Your task to perform on an android device: Go to location settings Image 0: 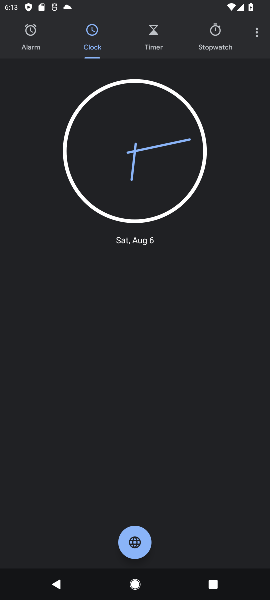
Step 0: press home button
Your task to perform on an android device: Go to location settings Image 1: 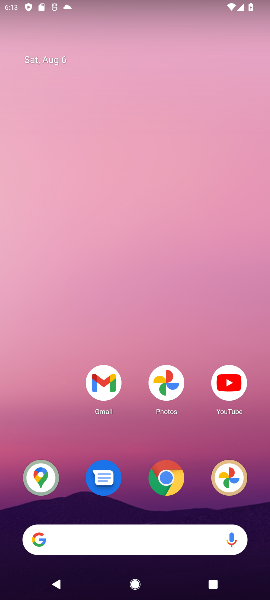
Step 1: drag from (125, 508) to (133, 86)
Your task to perform on an android device: Go to location settings Image 2: 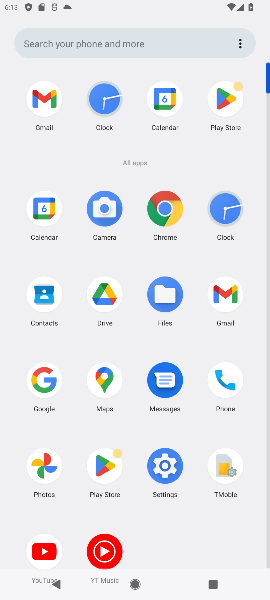
Step 2: click (169, 475)
Your task to perform on an android device: Go to location settings Image 3: 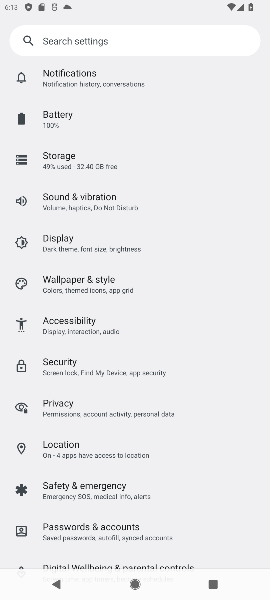
Step 3: click (63, 447)
Your task to perform on an android device: Go to location settings Image 4: 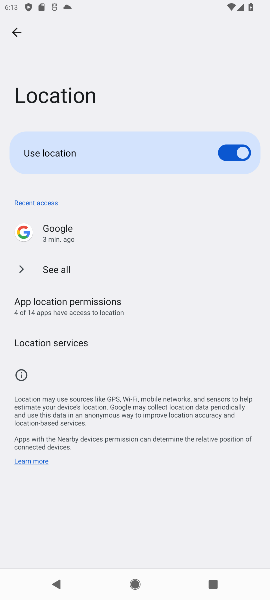
Step 4: task complete